Your task to perform on an android device: change the clock display to analog Image 0: 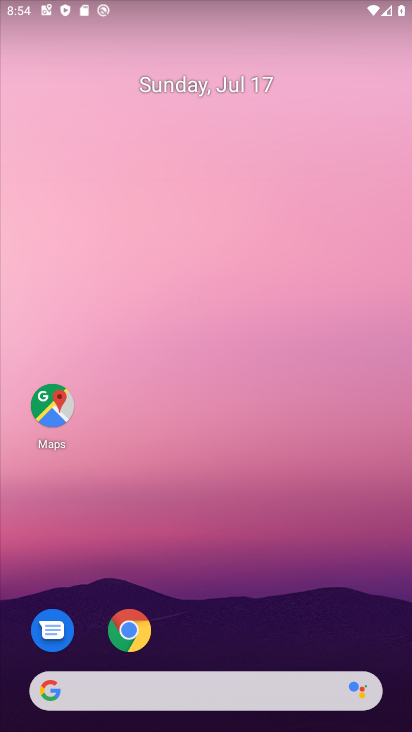
Step 0: drag from (197, 699) to (20, 27)
Your task to perform on an android device: change the clock display to analog Image 1: 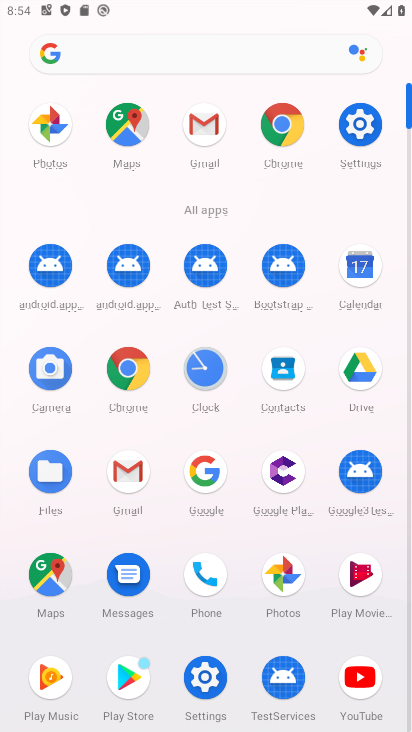
Step 1: click (205, 376)
Your task to perform on an android device: change the clock display to analog Image 2: 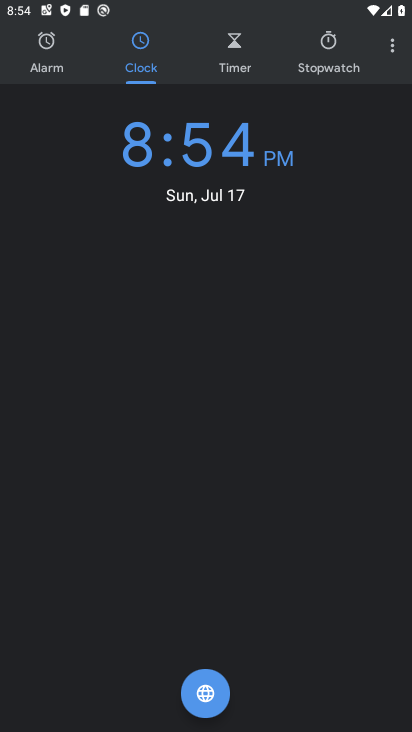
Step 2: click (387, 46)
Your task to perform on an android device: change the clock display to analog Image 3: 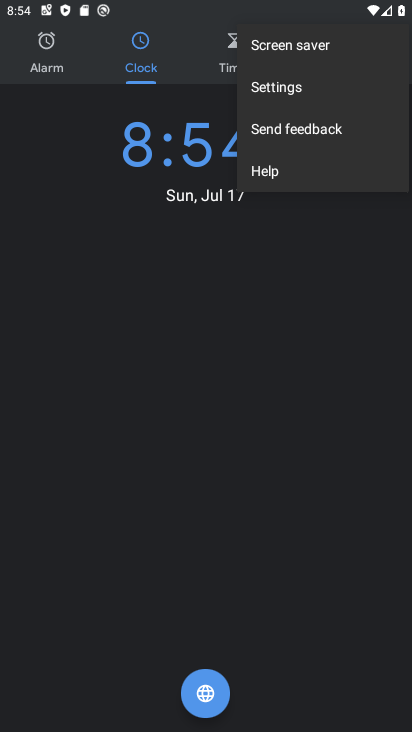
Step 3: click (273, 85)
Your task to perform on an android device: change the clock display to analog Image 4: 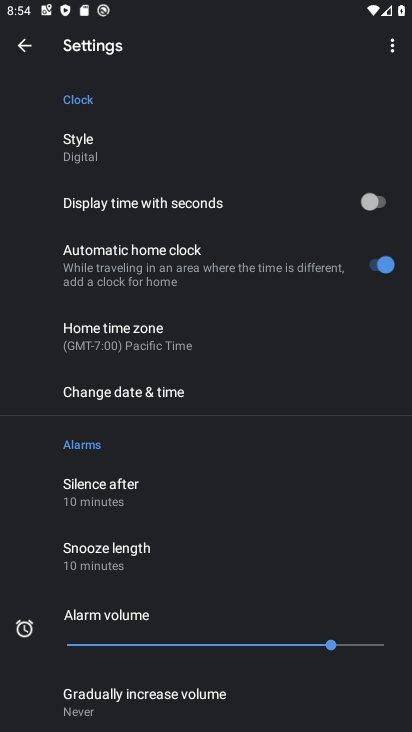
Step 4: click (143, 138)
Your task to perform on an android device: change the clock display to analog Image 5: 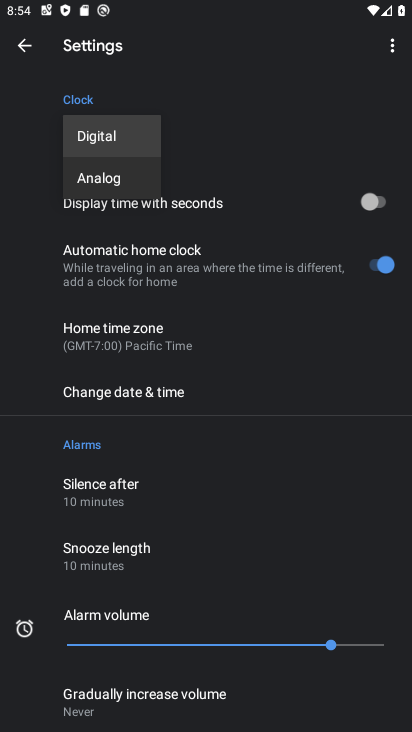
Step 5: click (117, 186)
Your task to perform on an android device: change the clock display to analog Image 6: 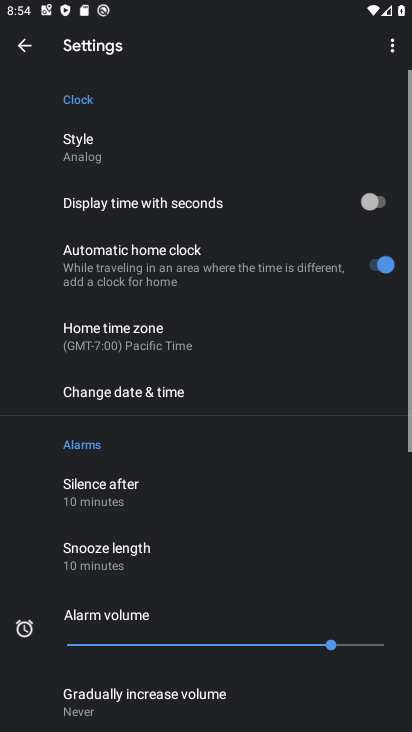
Step 6: task complete